Your task to perform on an android device: check battery use Image 0: 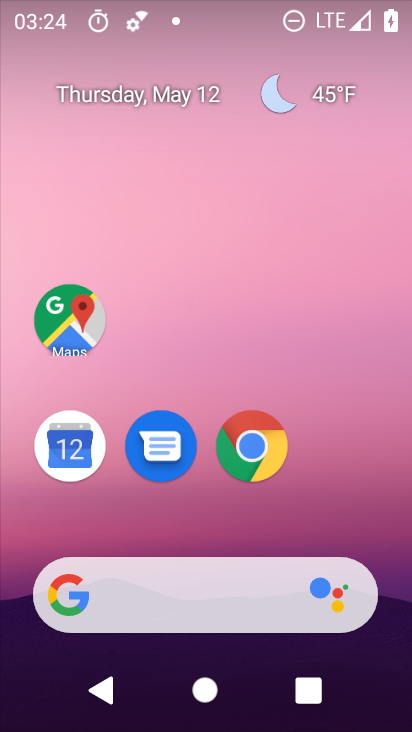
Step 0: drag from (208, 530) to (252, 124)
Your task to perform on an android device: check battery use Image 1: 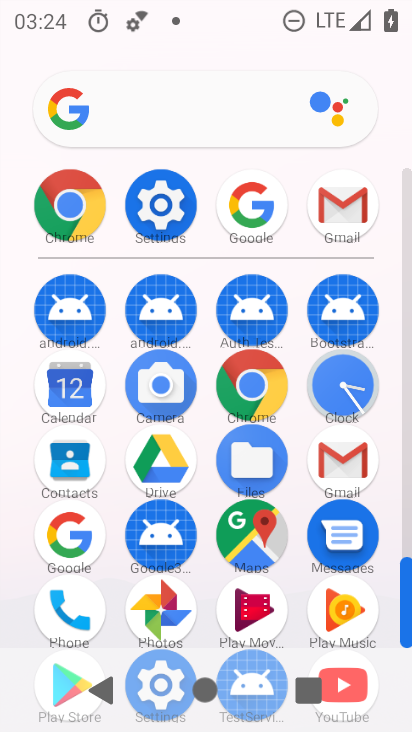
Step 1: click (187, 201)
Your task to perform on an android device: check battery use Image 2: 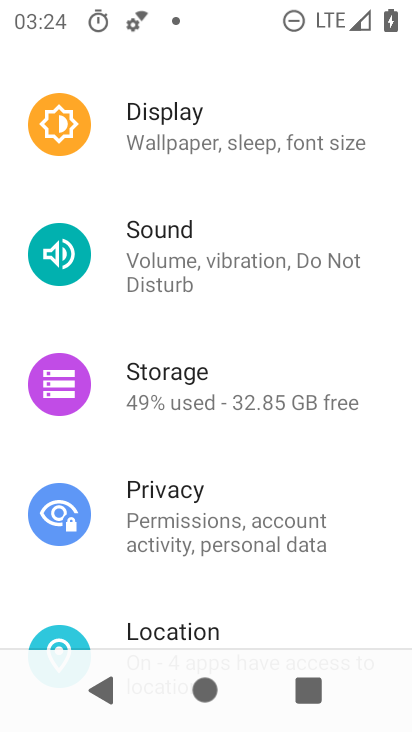
Step 2: drag from (240, 544) to (291, 279)
Your task to perform on an android device: check battery use Image 3: 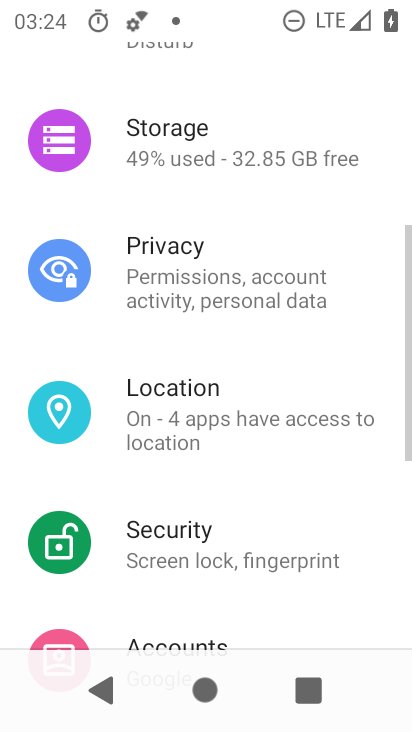
Step 3: drag from (237, 531) to (287, 253)
Your task to perform on an android device: check battery use Image 4: 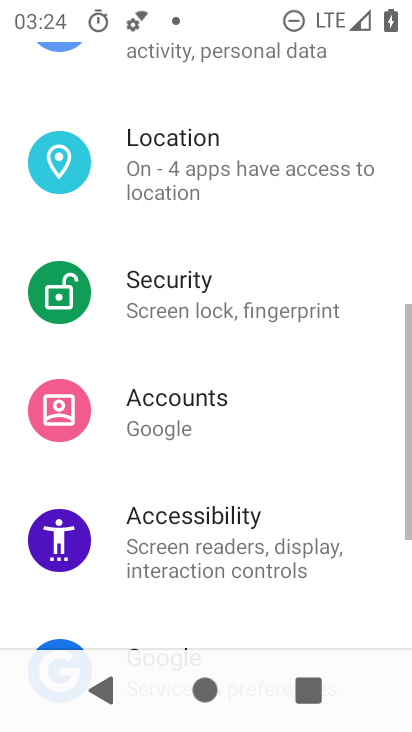
Step 4: drag from (284, 319) to (257, 572)
Your task to perform on an android device: check battery use Image 5: 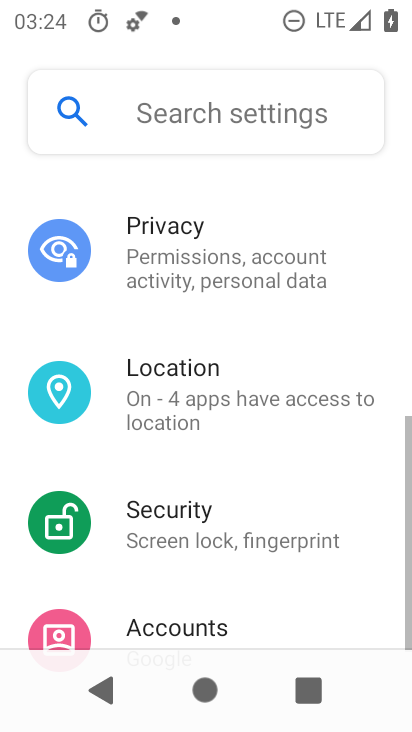
Step 5: drag from (288, 246) to (288, 455)
Your task to perform on an android device: check battery use Image 6: 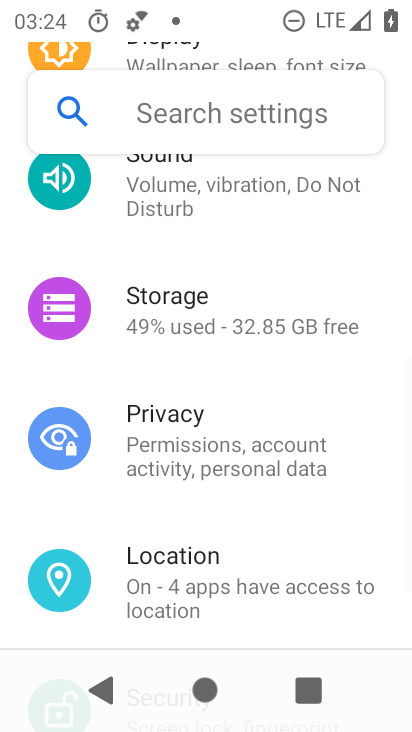
Step 6: drag from (288, 305) to (288, 499)
Your task to perform on an android device: check battery use Image 7: 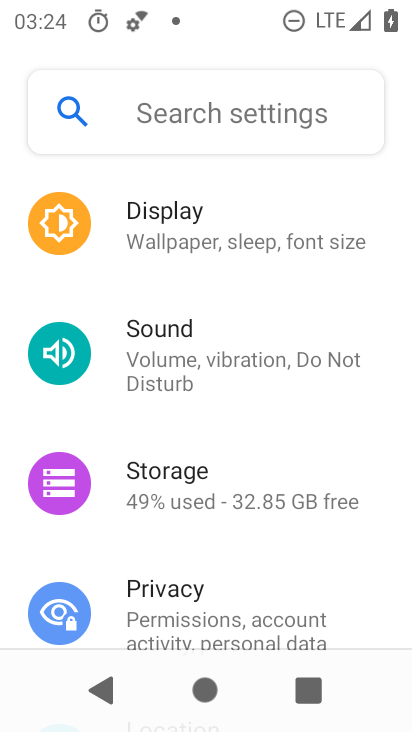
Step 7: drag from (291, 286) to (288, 495)
Your task to perform on an android device: check battery use Image 8: 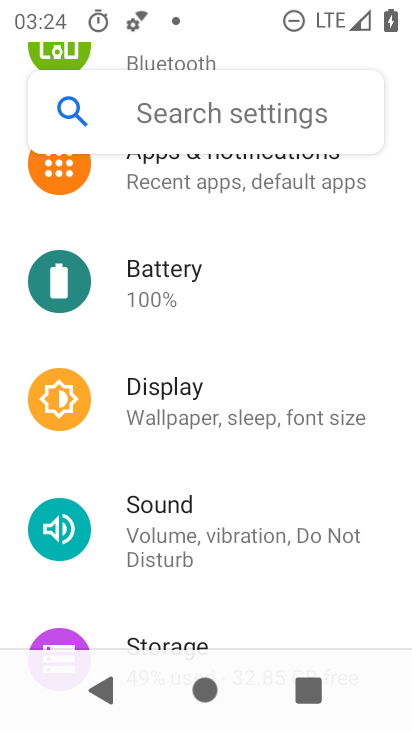
Step 8: click (227, 304)
Your task to perform on an android device: check battery use Image 9: 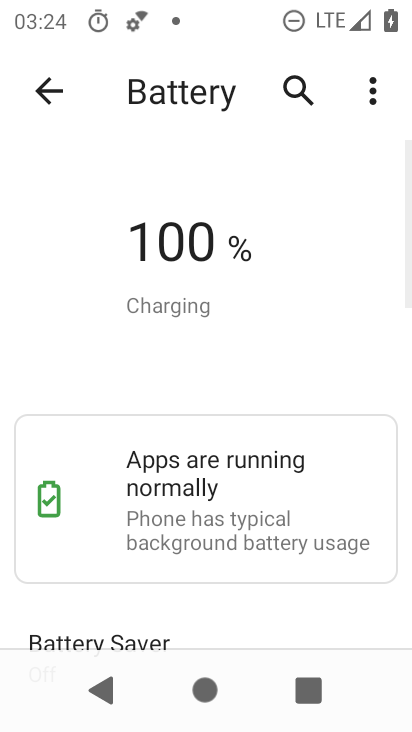
Step 9: click (374, 99)
Your task to perform on an android device: check battery use Image 10: 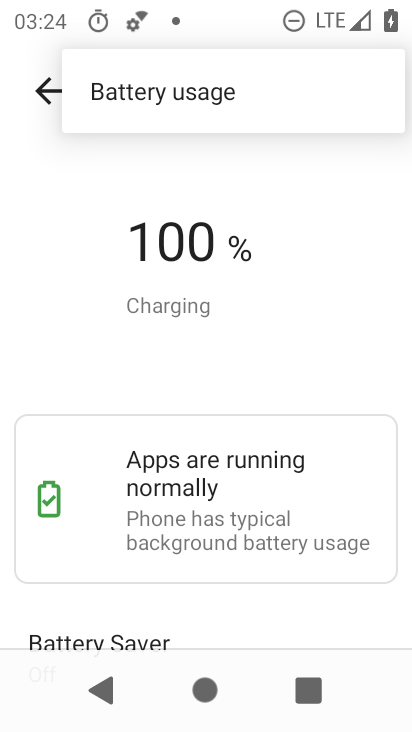
Step 10: click (273, 93)
Your task to perform on an android device: check battery use Image 11: 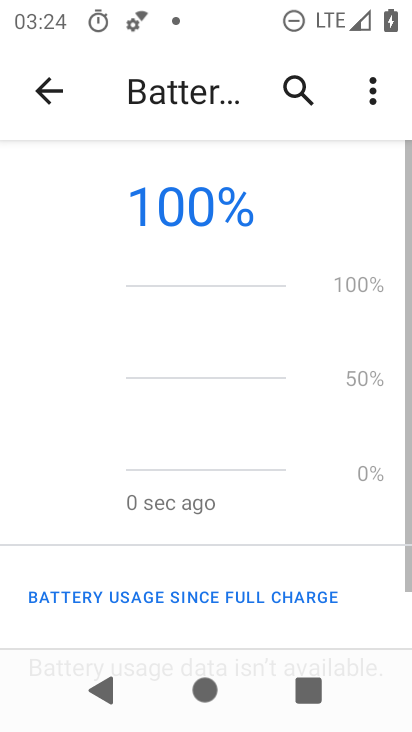
Step 11: task complete